Your task to perform on an android device: What's the weather going to be tomorrow? Image 0: 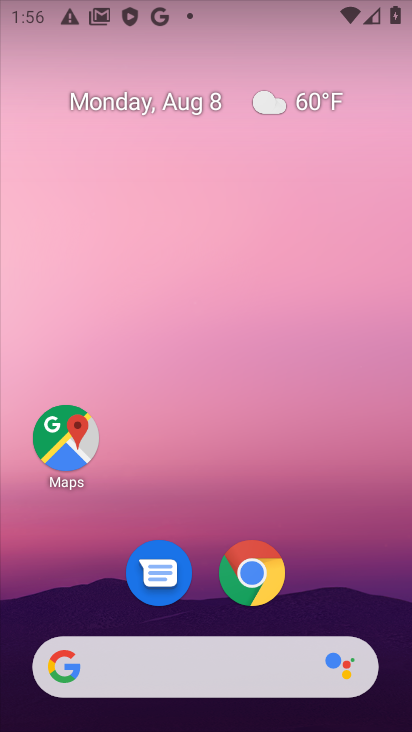
Step 0: drag from (230, 669) to (177, 163)
Your task to perform on an android device: What's the weather going to be tomorrow? Image 1: 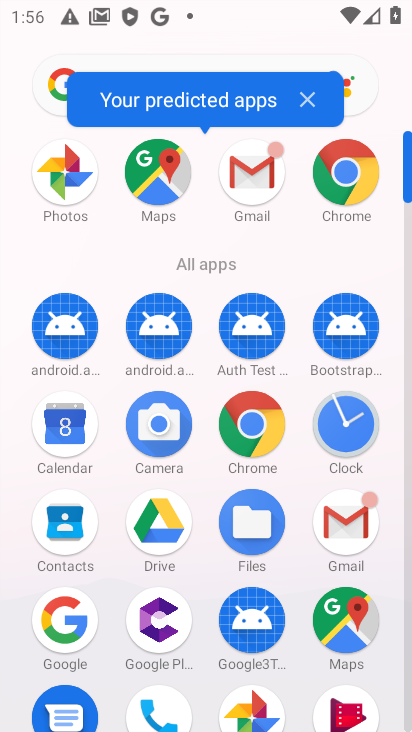
Step 1: click (61, 618)
Your task to perform on an android device: What's the weather going to be tomorrow? Image 2: 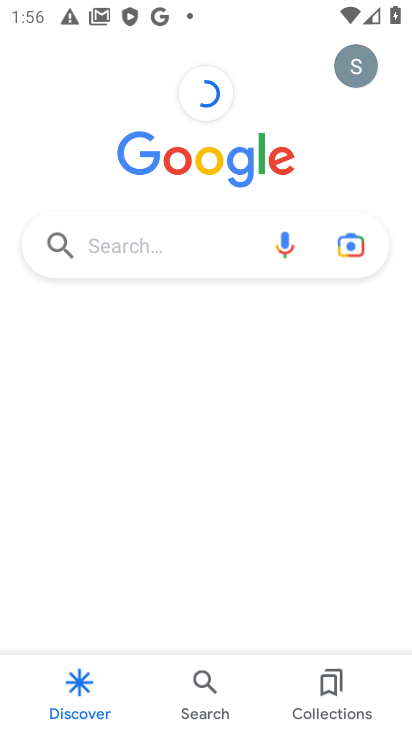
Step 2: click (142, 232)
Your task to perform on an android device: What's the weather going to be tomorrow? Image 3: 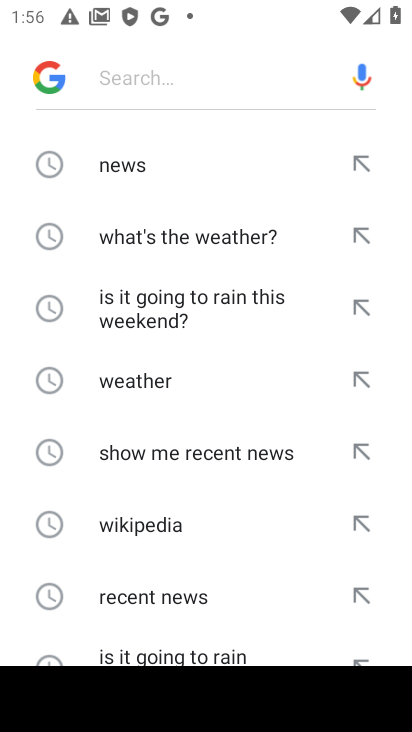
Step 3: type "What's the weather going to be tomorrow?"
Your task to perform on an android device: What's the weather going to be tomorrow? Image 4: 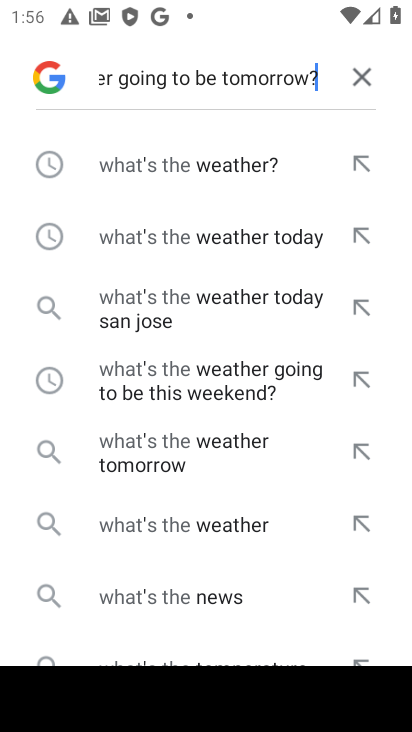
Step 4: type ""
Your task to perform on an android device: What's the weather going to be tomorrow? Image 5: 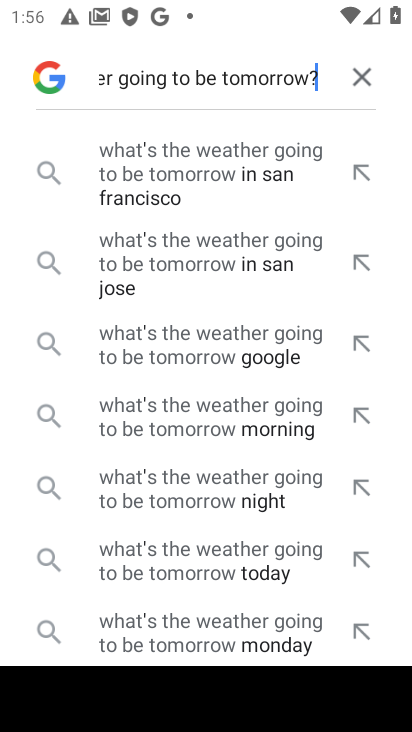
Step 5: click (267, 179)
Your task to perform on an android device: What's the weather going to be tomorrow? Image 6: 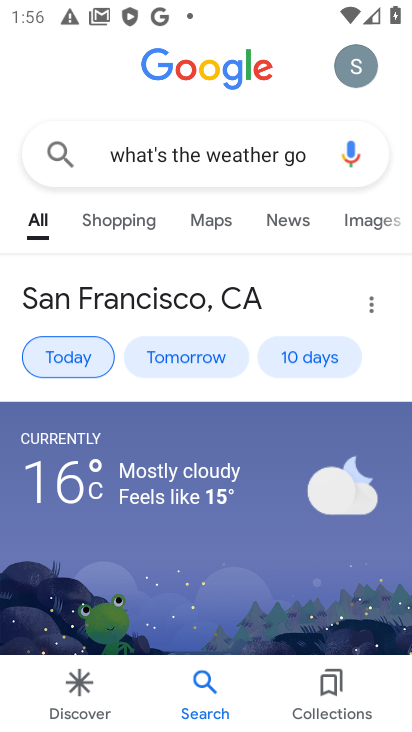
Step 6: click (201, 362)
Your task to perform on an android device: What's the weather going to be tomorrow? Image 7: 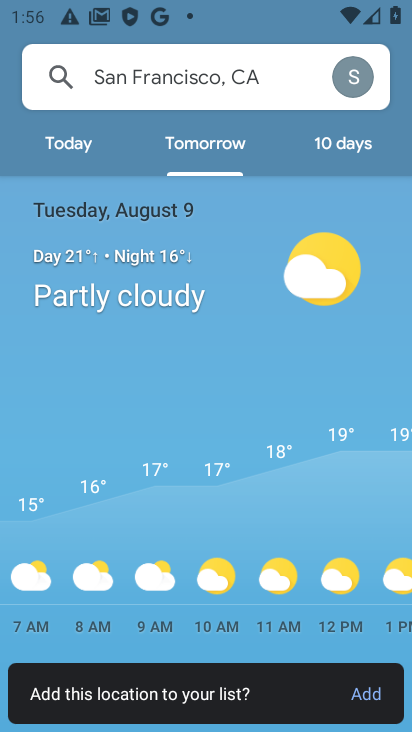
Step 7: task complete